Your task to perform on an android device: What's the weather going to be tomorrow? Image 0: 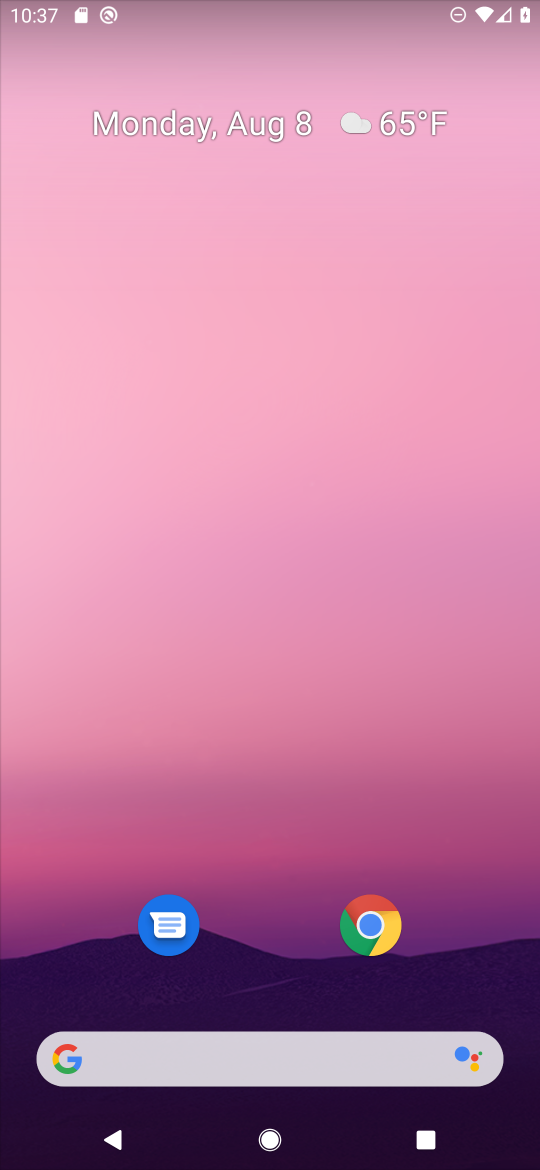
Step 0: click (415, 115)
Your task to perform on an android device: What's the weather going to be tomorrow? Image 1: 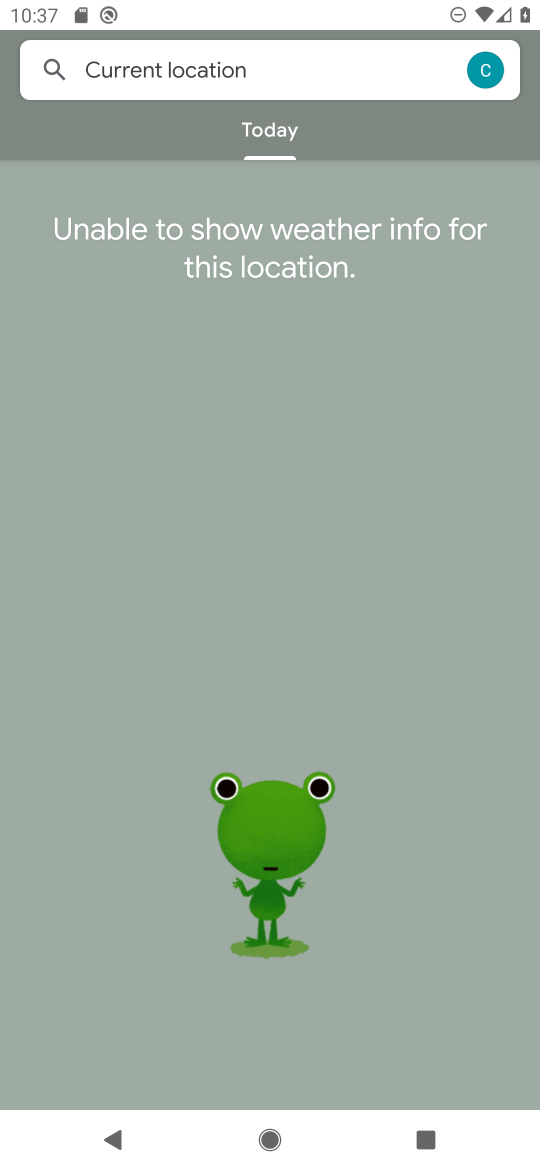
Step 1: task complete